Your task to perform on an android device: toggle wifi Image 0: 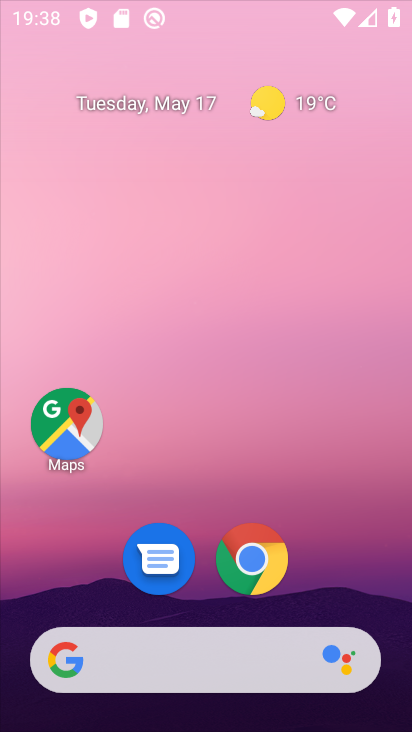
Step 0: drag from (199, 374) to (174, 144)
Your task to perform on an android device: toggle wifi Image 1: 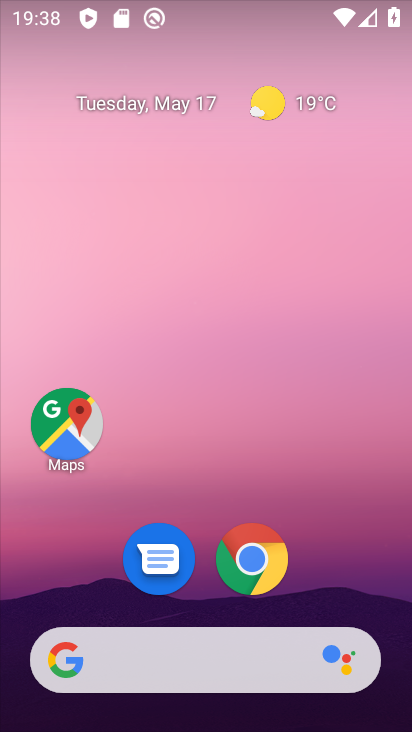
Step 1: drag from (206, 585) to (179, 61)
Your task to perform on an android device: toggle wifi Image 2: 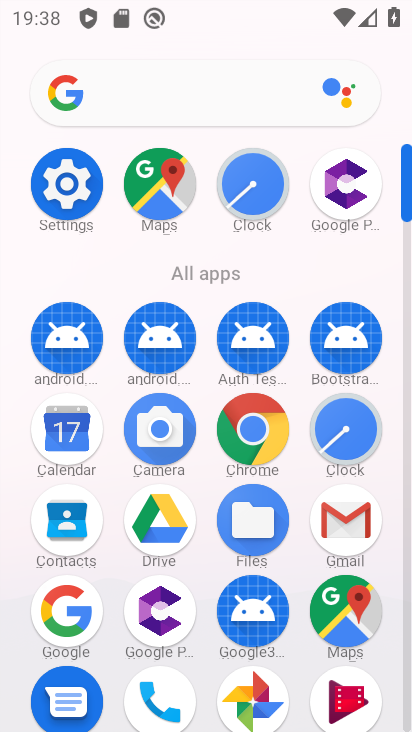
Step 2: click (54, 198)
Your task to perform on an android device: toggle wifi Image 3: 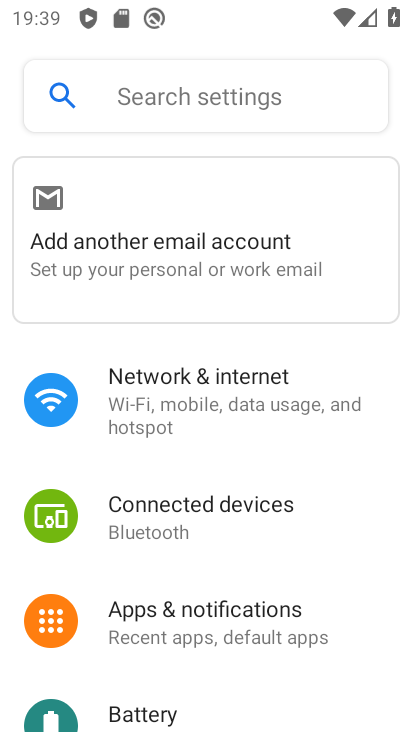
Step 3: click (186, 394)
Your task to perform on an android device: toggle wifi Image 4: 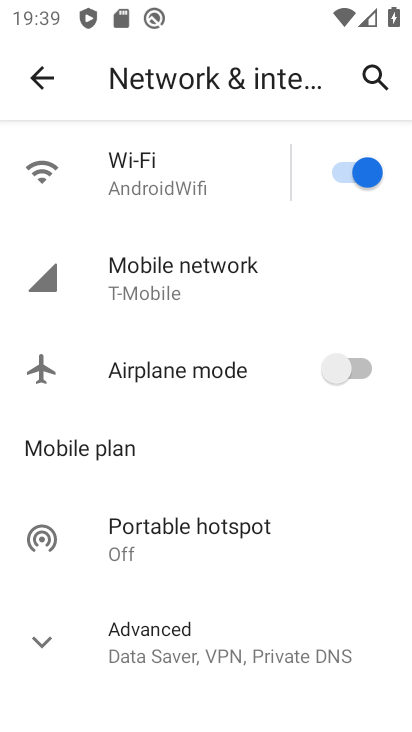
Step 4: click (221, 196)
Your task to perform on an android device: toggle wifi Image 5: 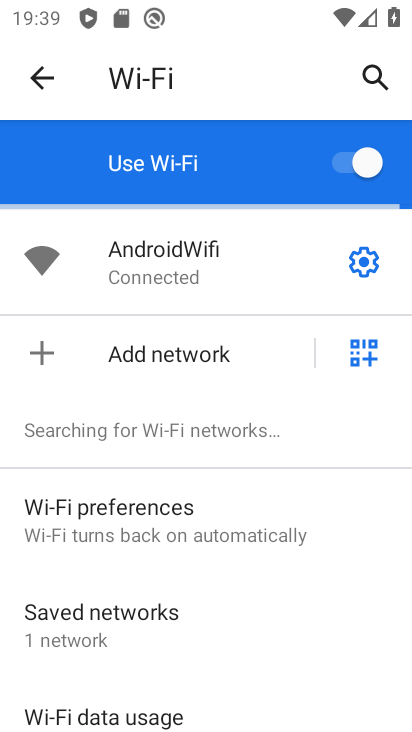
Step 5: click (329, 175)
Your task to perform on an android device: toggle wifi Image 6: 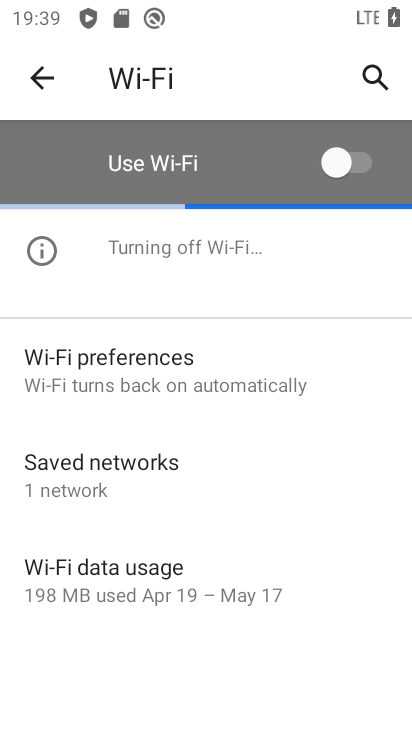
Step 6: task complete